Your task to perform on an android device: Open ESPN.com Image 0: 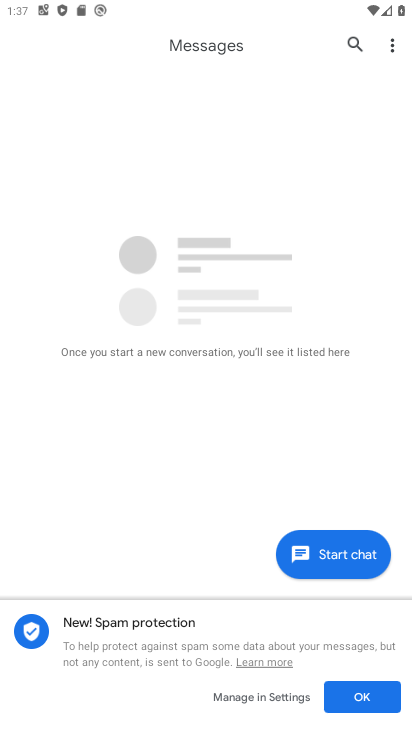
Step 0: press home button
Your task to perform on an android device: Open ESPN.com Image 1: 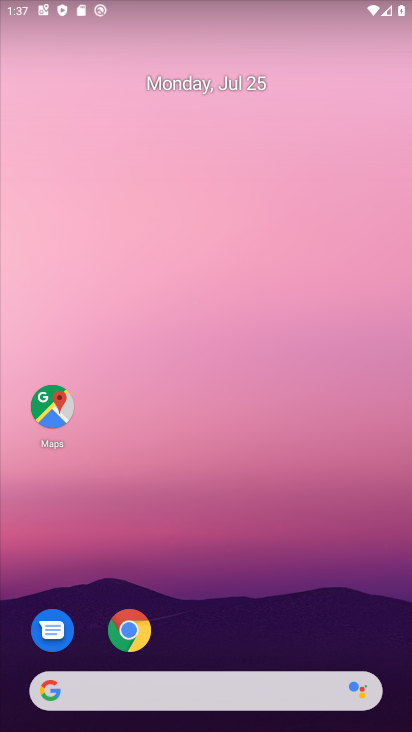
Step 1: click (236, 687)
Your task to perform on an android device: Open ESPN.com Image 2: 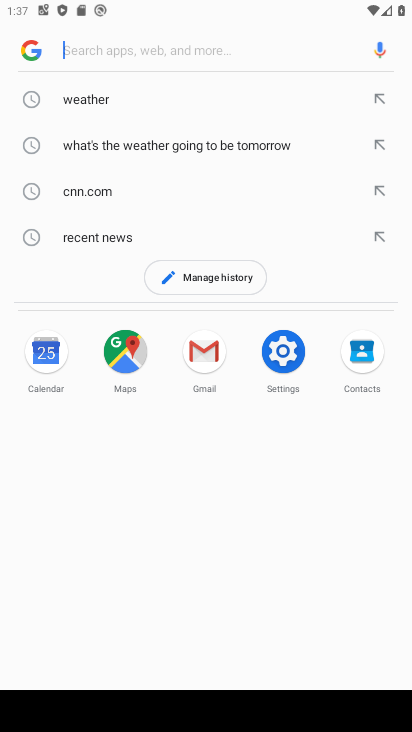
Step 2: type "espn.com"
Your task to perform on an android device: Open ESPN.com Image 3: 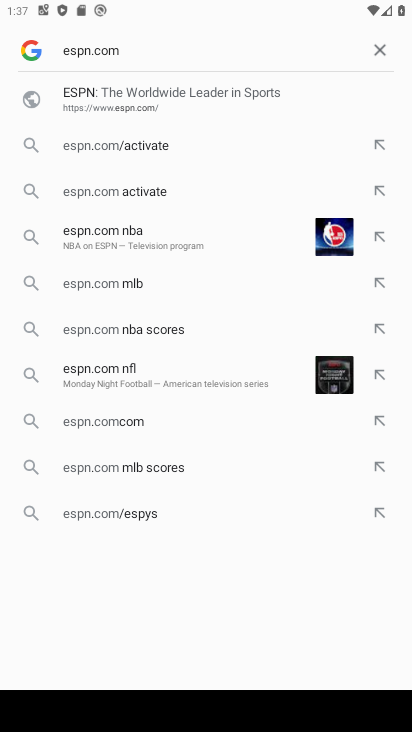
Step 3: click (168, 118)
Your task to perform on an android device: Open ESPN.com Image 4: 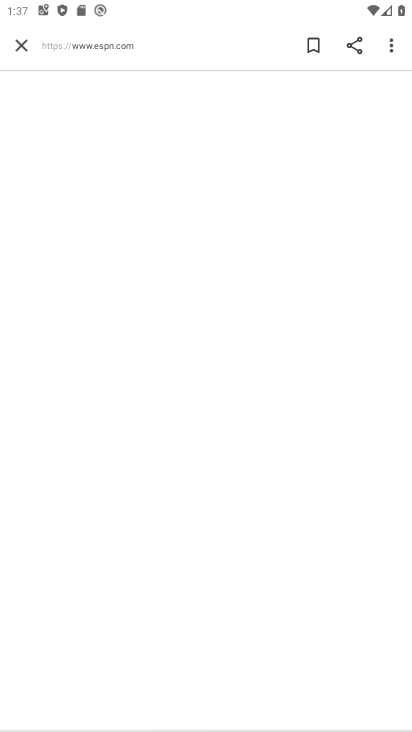
Step 4: task complete